Your task to perform on an android device: Open location settings Image 0: 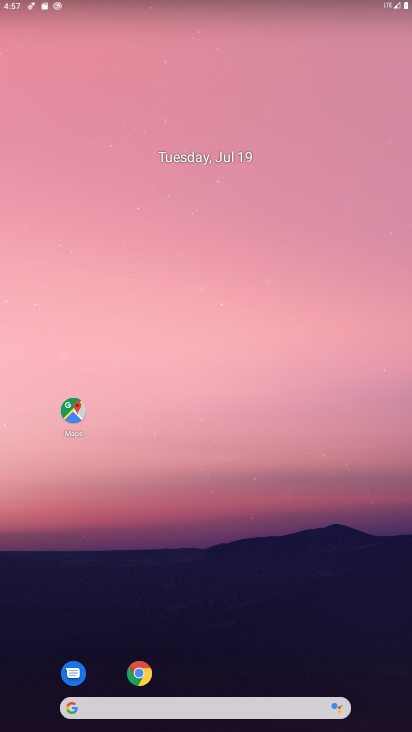
Step 0: drag from (223, 677) to (209, 69)
Your task to perform on an android device: Open location settings Image 1: 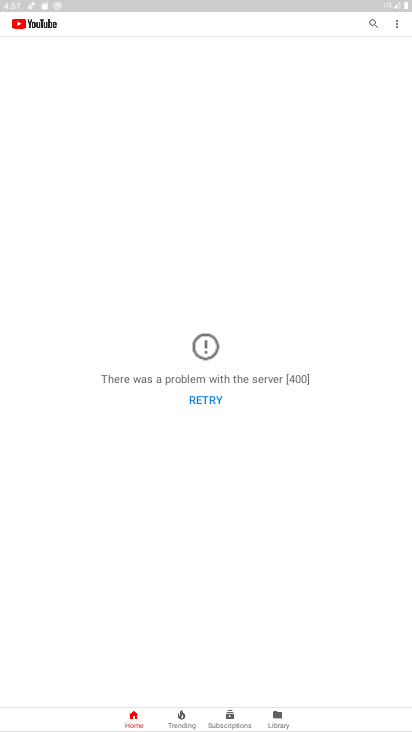
Step 1: press home button
Your task to perform on an android device: Open location settings Image 2: 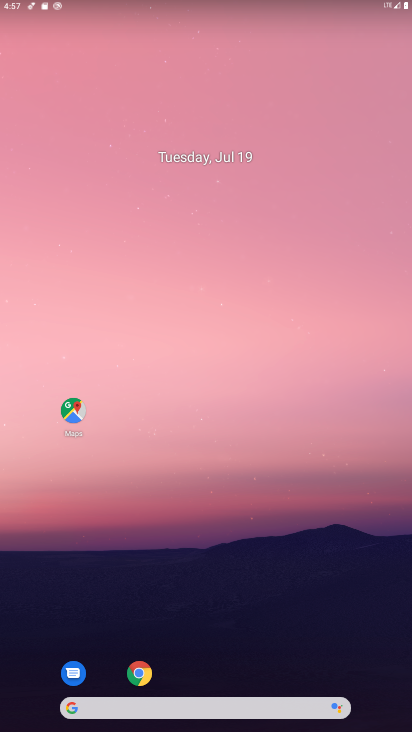
Step 2: drag from (206, 678) to (198, 66)
Your task to perform on an android device: Open location settings Image 3: 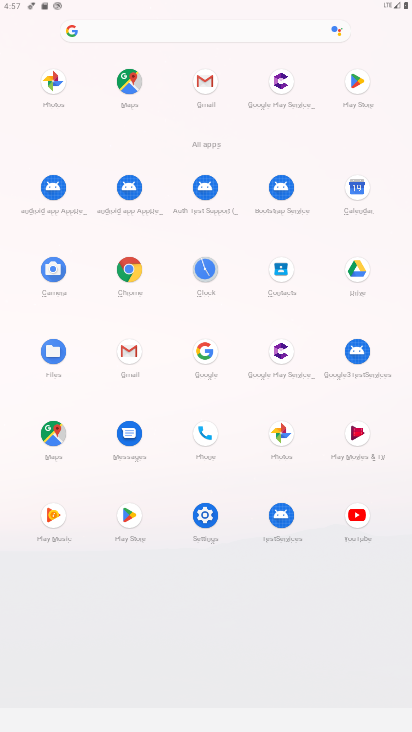
Step 3: click (204, 508)
Your task to perform on an android device: Open location settings Image 4: 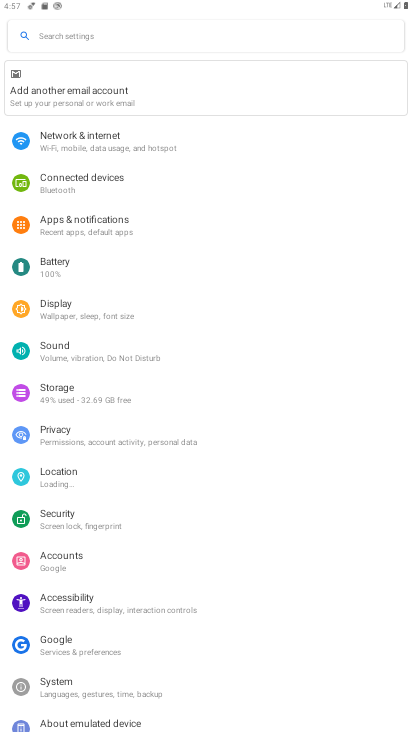
Step 4: click (78, 476)
Your task to perform on an android device: Open location settings Image 5: 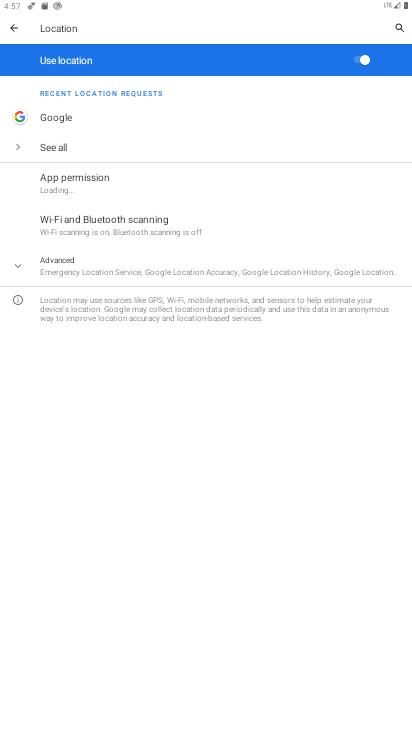
Step 5: click (18, 260)
Your task to perform on an android device: Open location settings Image 6: 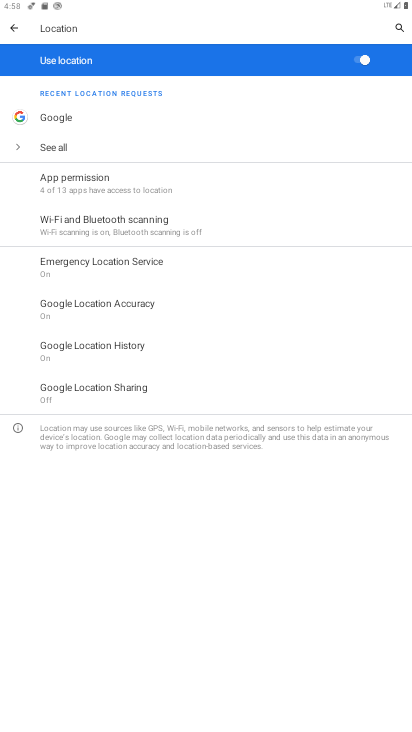
Step 6: task complete